Your task to perform on an android device: turn on bluetooth scan Image 0: 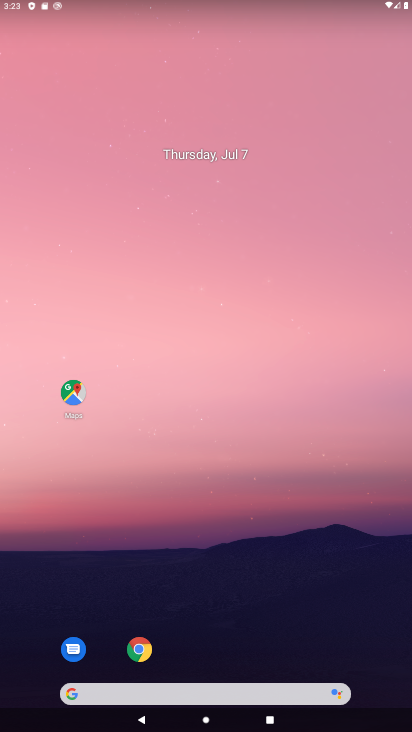
Step 0: drag from (192, 631) to (257, 43)
Your task to perform on an android device: turn on bluetooth scan Image 1: 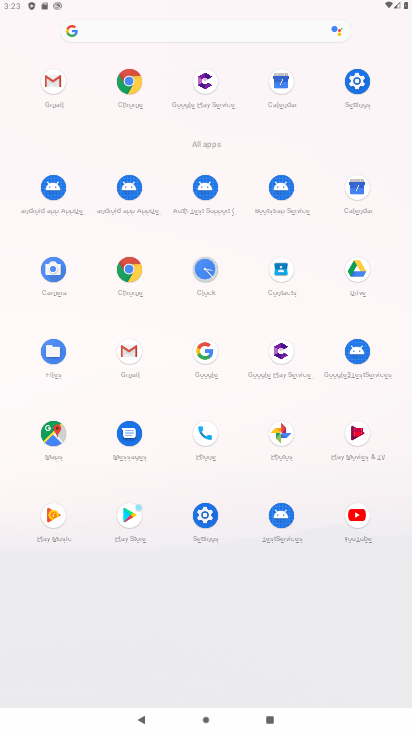
Step 1: click (349, 87)
Your task to perform on an android device: turn on bluetooth scan Image 2: 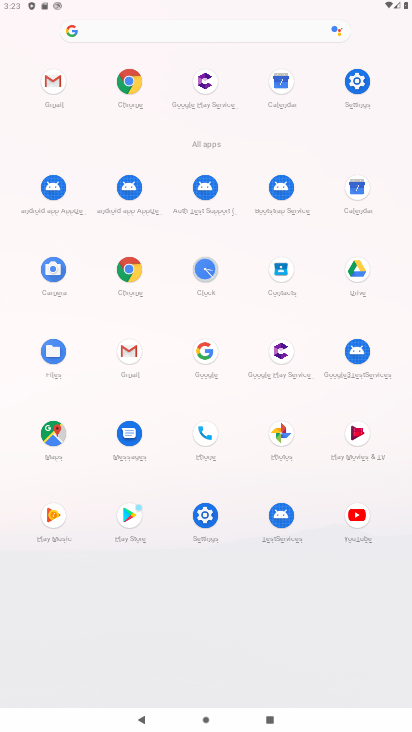
Step 2: click (349, 87)
Your task to perform on an android device: turn on bluetooth scan Image 3: 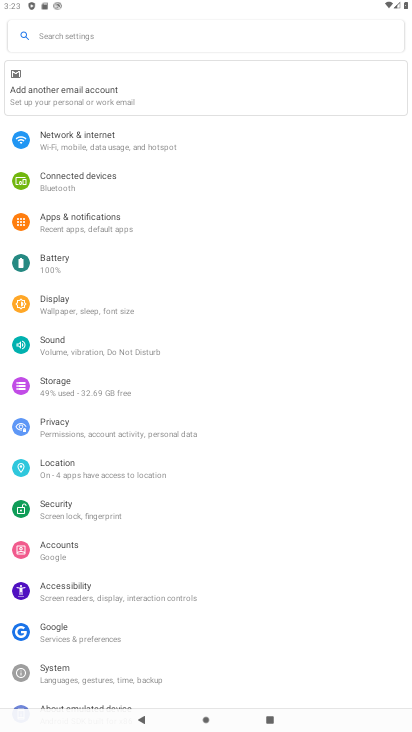
Step 3: drag from (107, 616) to (180, 372)
Your task to perform on an android device: turn on bluetooth scan Image 4: 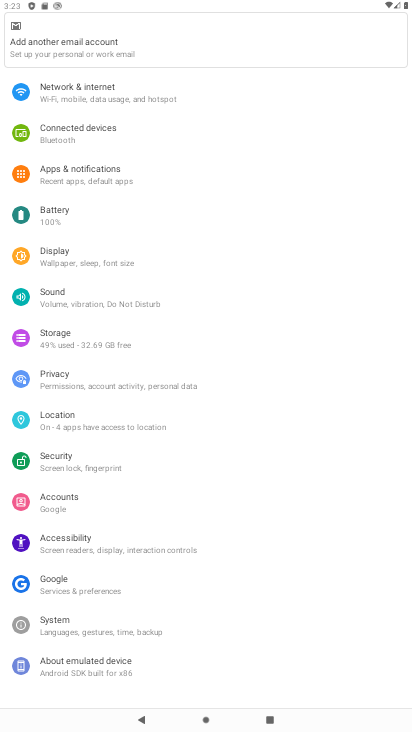
Step 4: click (59, 421)
Your task to perform on an android device: turn on bluetooth scan Image 5: 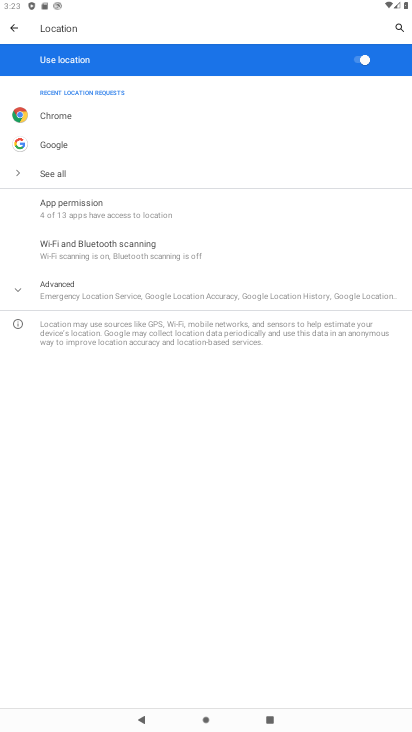
Step 5: click (129, 254)
Your task to perform on an android device: turn on bluetooth scan Image 6: 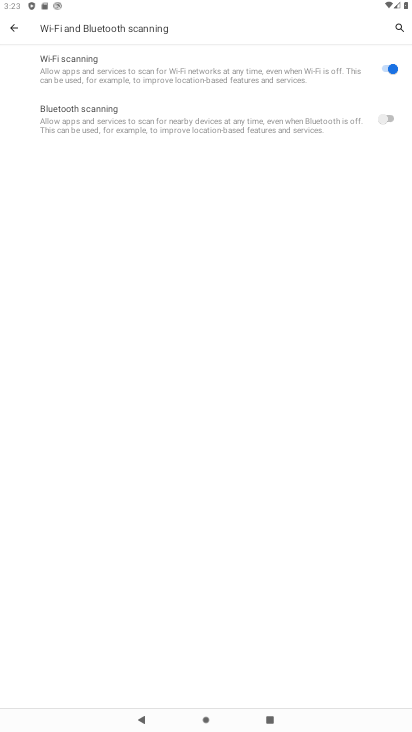
Step 6: click (367, 122)
Your task to perform on an android device: turn on bluetooth scan Image 7: 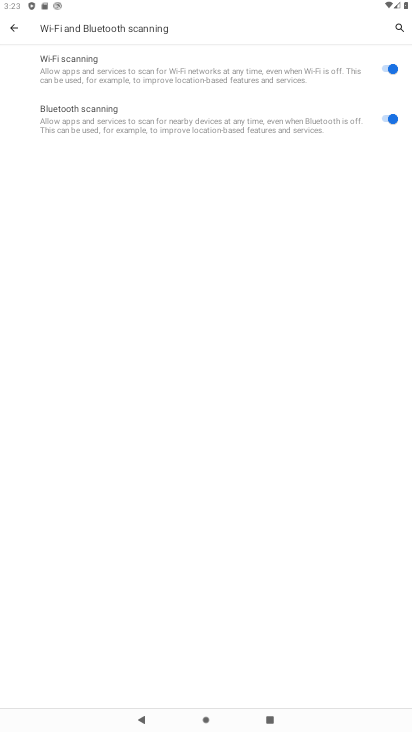
Step 7: task complete